Your task to perform on an android device: Open Maps and search for coffee Image 0: 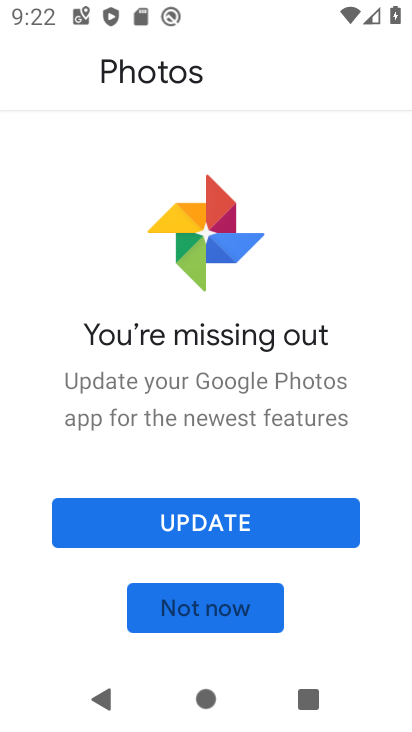
Step 0: press home button
Your task to perform on an android device: Open Maps and search for coffee Image 1: 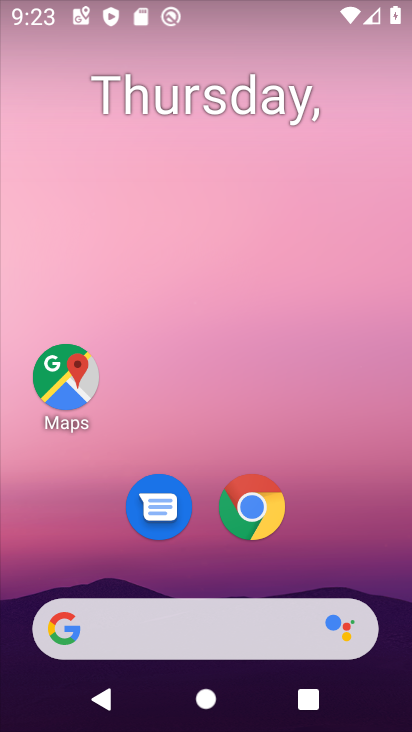
Step 1: click (68, 370)
Your task to perform on an android device: Open Maps and search for coffee Image 2: 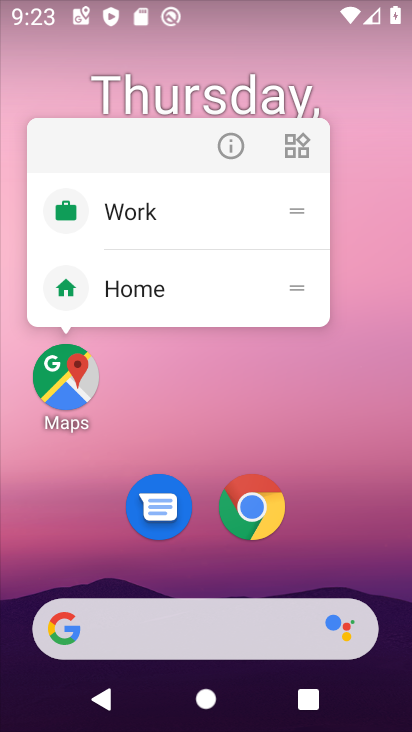
Step 2: click (68, 370)
Your task to perform on an android device: Open Maps and search for coffee Image 3: 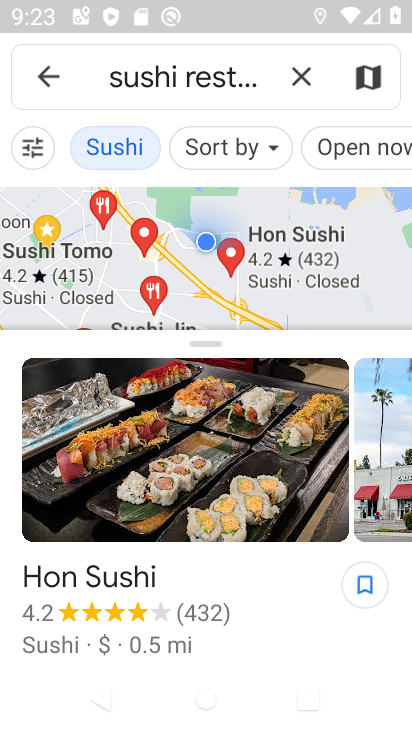
Step 3: click (311, 78)
Your task to perform on an android device: Open Maps and search for coffee Image 4: 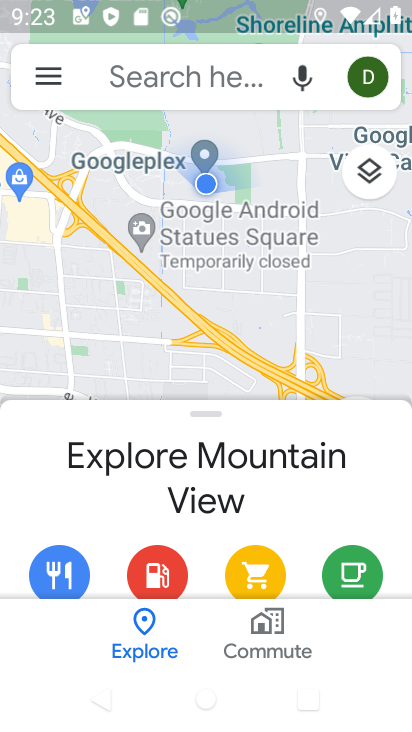
Step 4: click (161, 77)
Your task to perform on an android device: Open Maps and search for coffee Image 5: 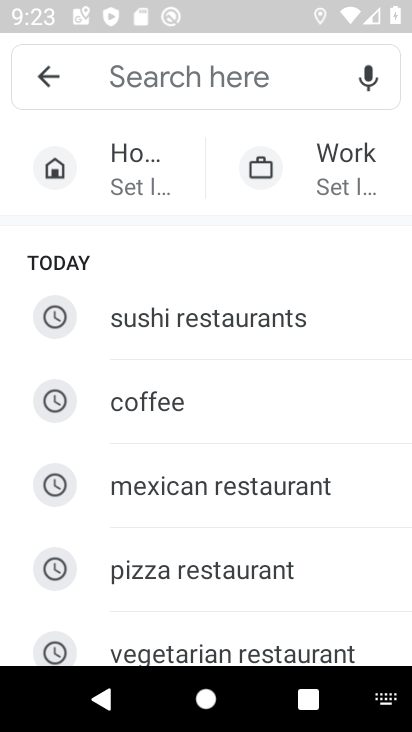
Step 5: type "coffee"
Your task to perform on an android device: Open Maps and search for coffee Image 6: 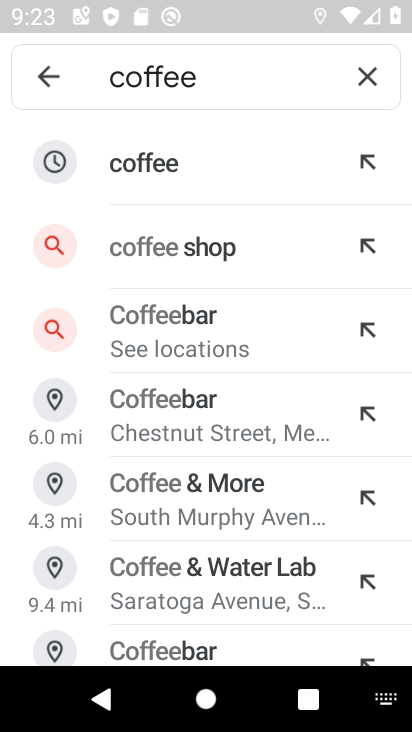
Step 6: click (223, 141)
Your task to perform on an android device: Open Maps and search for coffee Image 7: 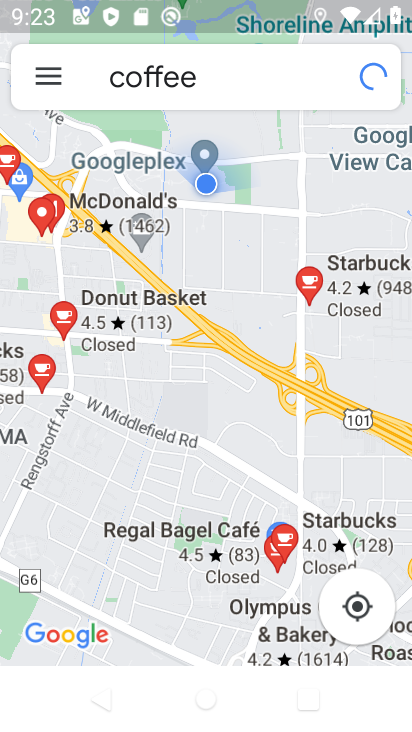
Step 7: task complete